Your task to perform on an android device: Open Android settings Image 0: 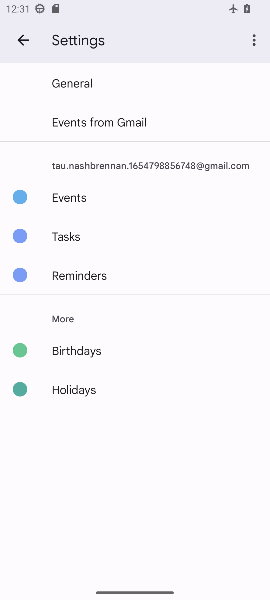
Step 0: press home button
Your task to perform on an android device: Open Android settings Image 1: 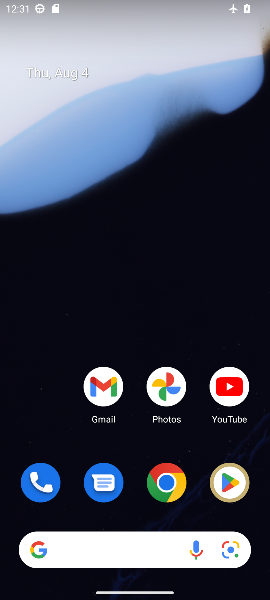
Step 1: task complete